Your task to perform on an android device: turn on data saver in the chrome app Image 0: 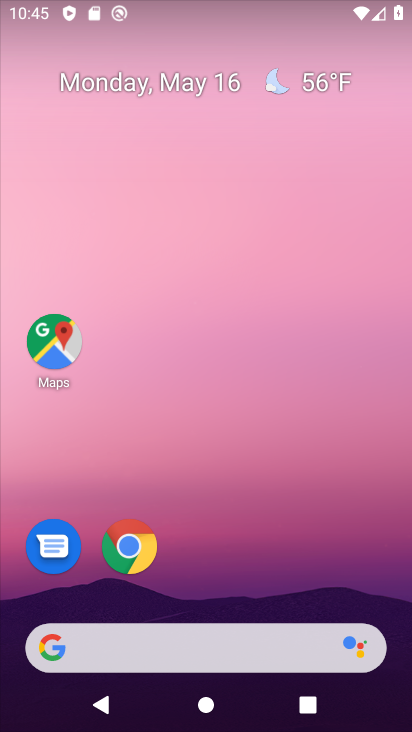
Step 0: drag from (303, 493) to (262, 83)
Your task to perform on an android device: turn on data saver in the chrome app Image 1: 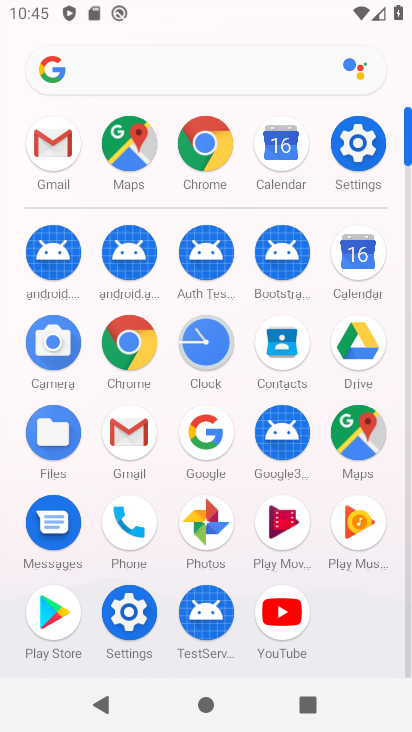
Step 1: click (212, 145)
Your task to perform on an android device: turn on data saver in the chrome app Image 2: 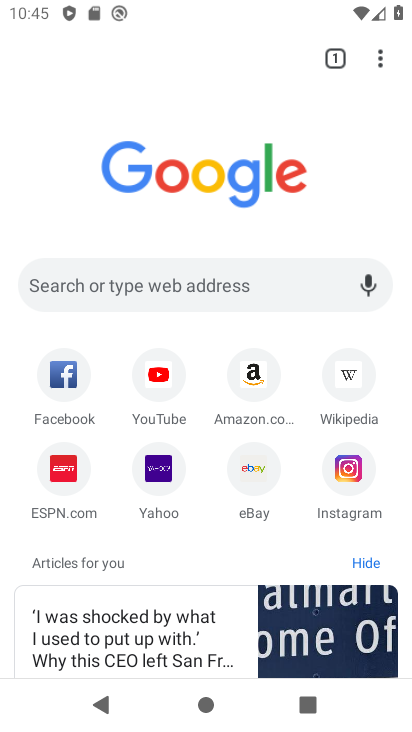
Step 2: drag from (393, 77) to (280, 515)
Your task to perform on an android device: turn on data saver in the chrome app Image 3: 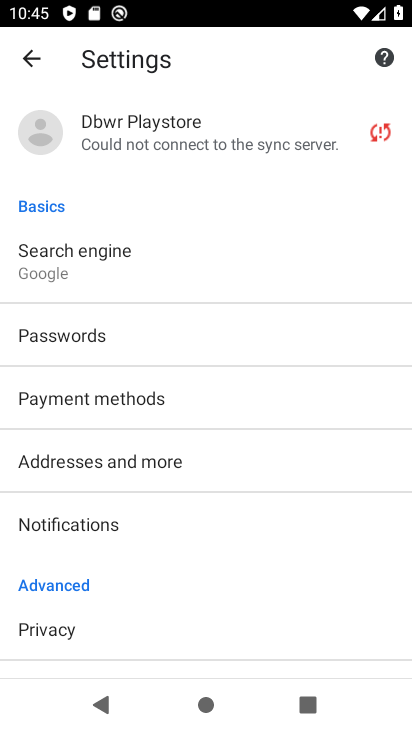
Step 3: drag from (179, 602) to (245, 183)
Your task to perform on an android device: turn on data saver in the chrome app Image 4: 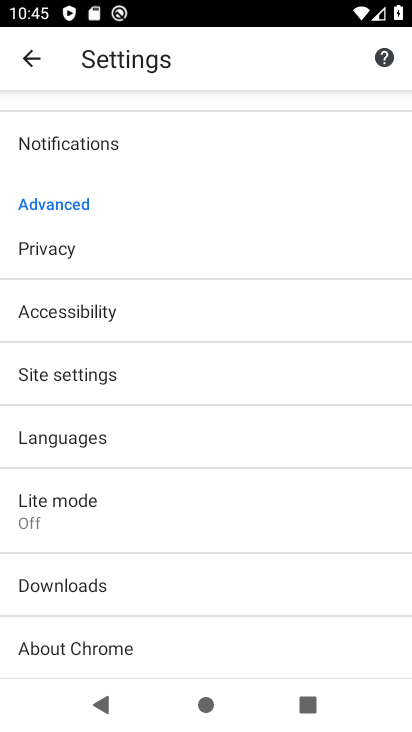
Step 4: click (116, 506)
Your task to perform on an android device: turn on data saver in the chrome app Image 5: 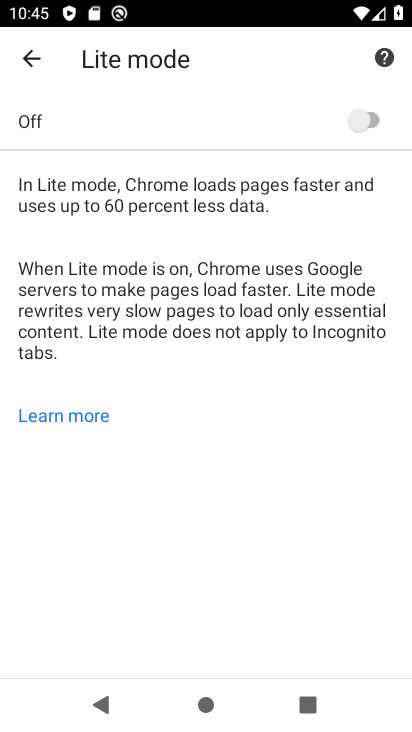
Step 5: click (357, 125)
Your task to perform on an android device: turn on data saver in the chrome app Image 6: 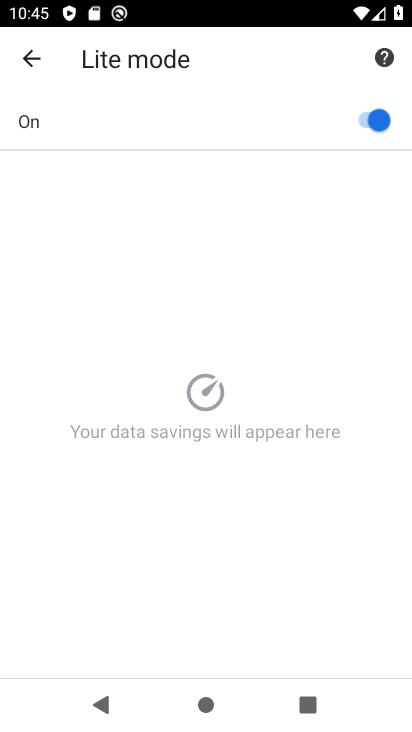
Step 6: task complete